Your task to perform on an android device: clear all cookies in the chrome app Image 0: 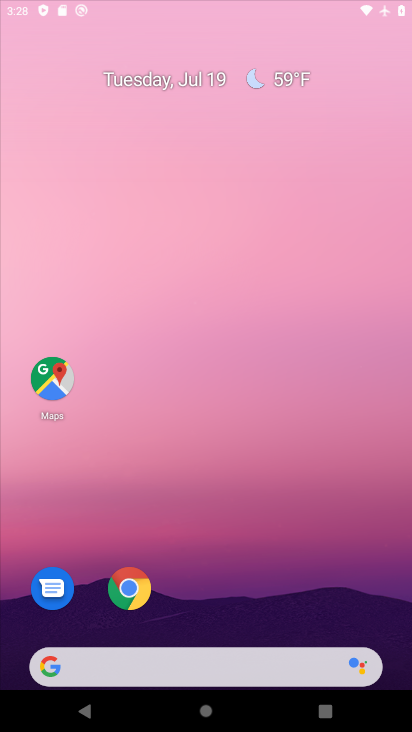
Step 0: press home button
Your task to perform on an android device: clear all cookies in the chrome app Image 1: 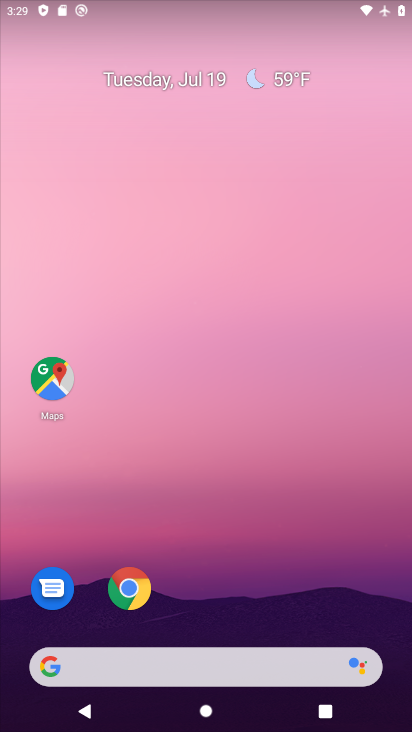
Step 1: drag from (243, 637) to (240, 223)
Your task to perform on an android device: clear all cookies in the chrome app Image 2: 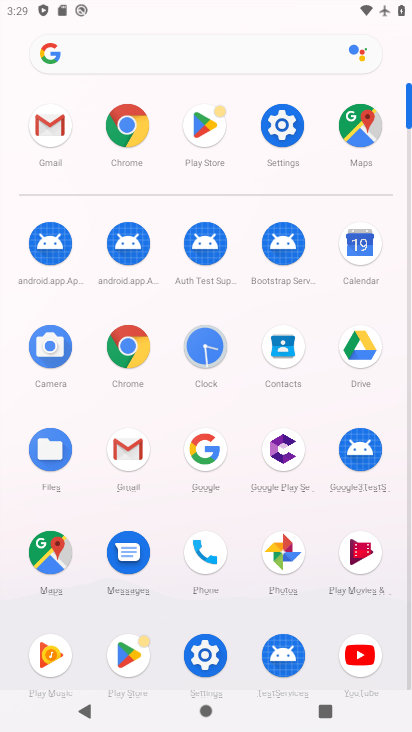
Step 2: click (130, 132)
Your task to perform on an android device: clear all cookies in the chrome app Image 3: 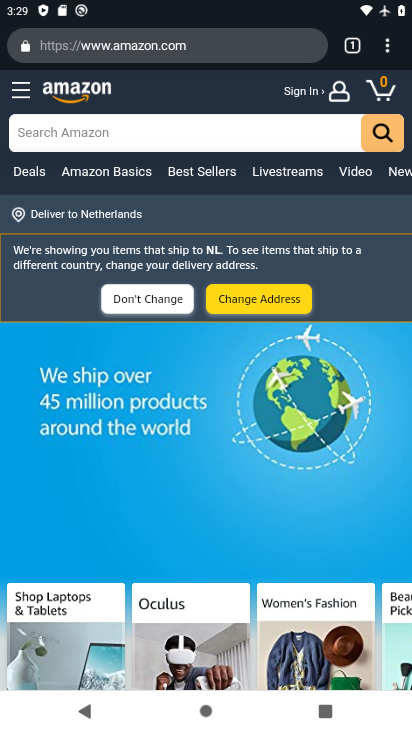
Step 3: drag from (393, 47) to (216, 506)
Your task to perform on an android device: clear all cookies in the chrome app Image 4: 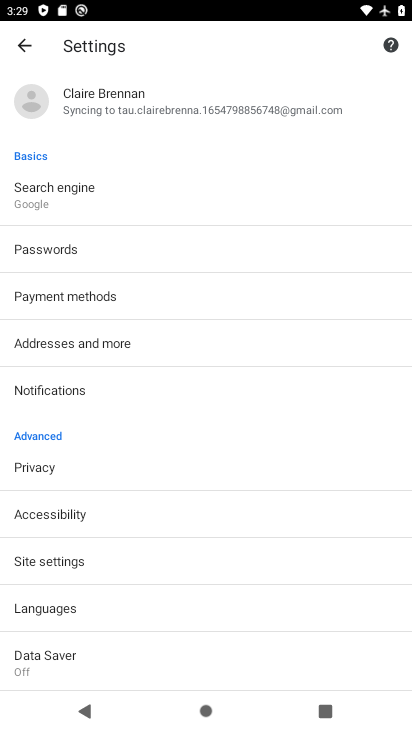
Step 4: click (40, 465)
Your task to perform on an android device: clear all cookies in the chrome app Image 5: 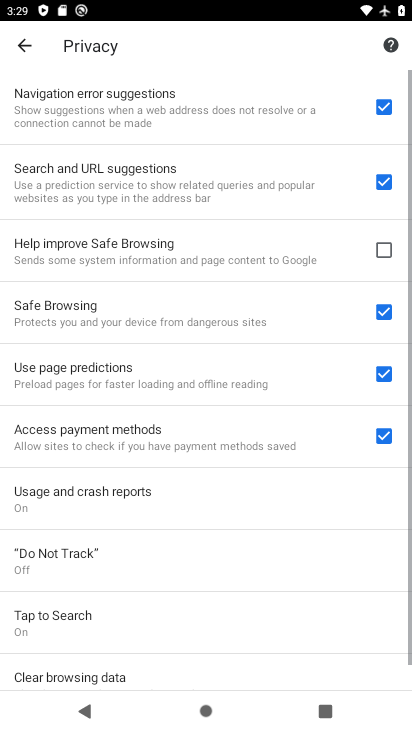
Step 5: click (68, 676)
Your task to perform on an android device: clear all cookies in the chrome app Image 6: 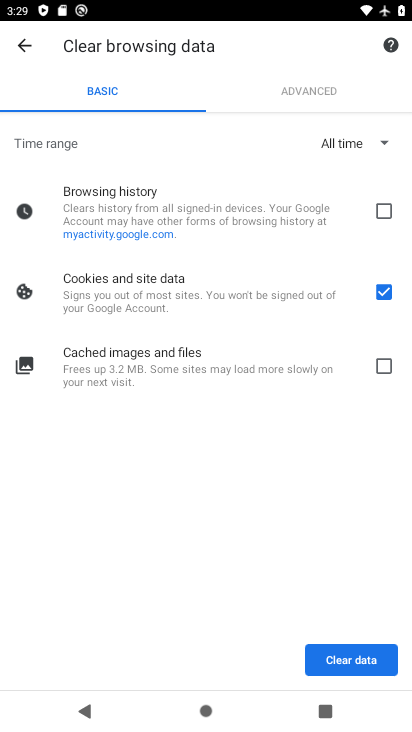
Step 6: click (338, 654)
Your task to perform on an android device: clear all cookies in the chrome app Image 7: 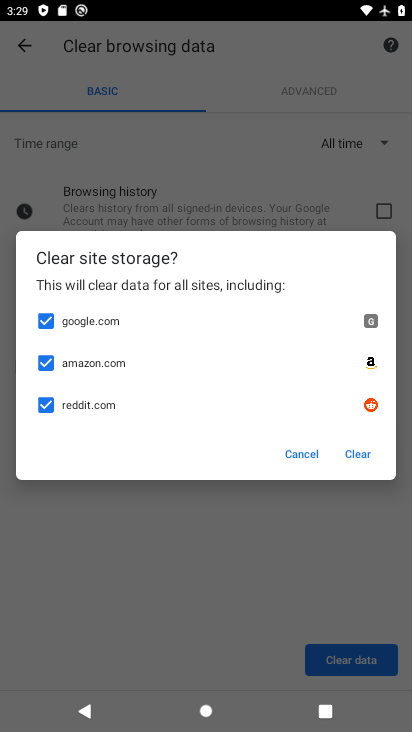
Step 7: click (356, 453)
Your task to perform on an android device: clear all cookies in the chrome app Image 8: 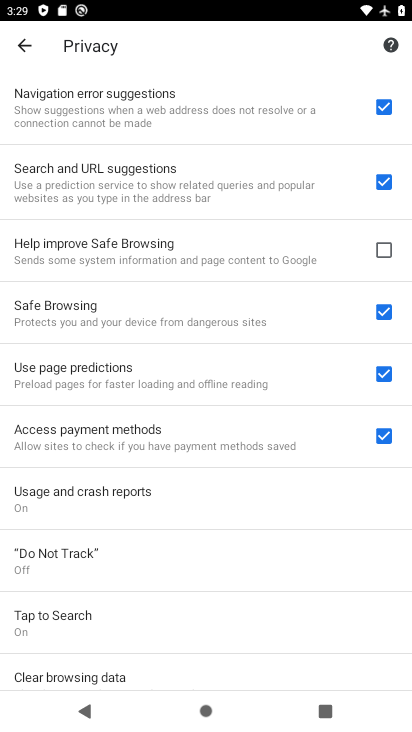
Step 8: task complete